Your task to perform on an android device: Open eBay Image 0: 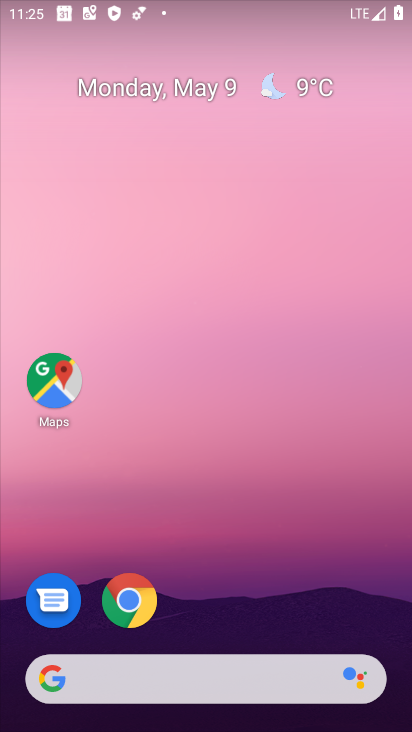
Step 0: drag from (303, 612) to (359, 222)
Your task to perform on an android device: Open eBay Image 1: 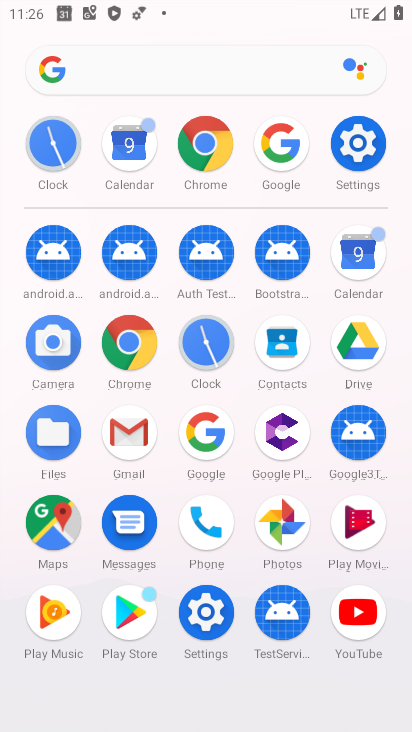
Step 1: click (210, 143)
Your task to perform on an android device: Open eBay Image 2: 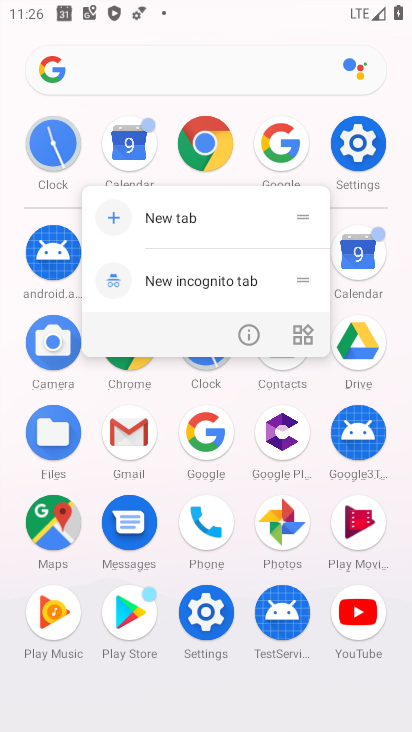
Step 2: click (219, 171)
Your task to perform on an android device: Open eBay Image 3: 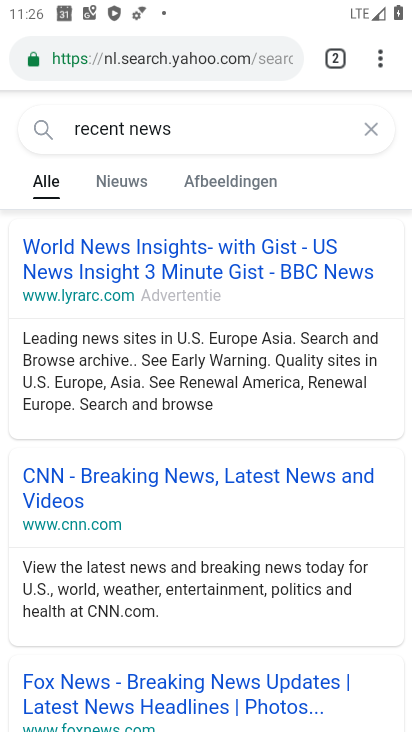
Step 3: click (237, 135)
Your task to perform on an android device: Open eBay Image 4: 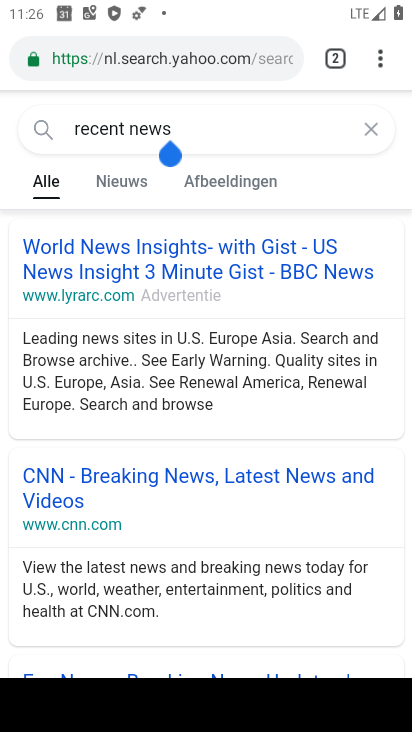
Step 4: click (362, 140)
Your task to perform on an android device: Open eBay Image 5: 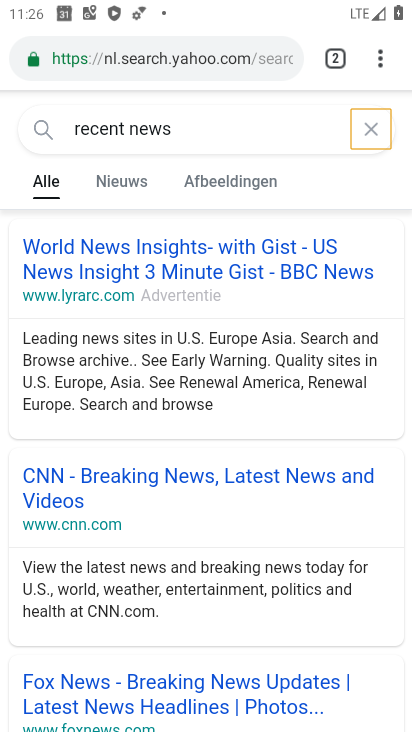
Step 5: click (363, 140)
Your task to perform on an android device: Open eBay Image 6: 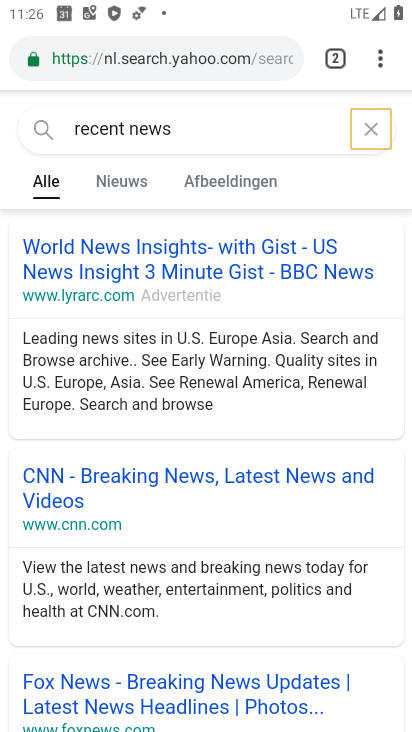
Step 6: click (229, 57)
Your task to perform on an android device: Open eBay Image 7: 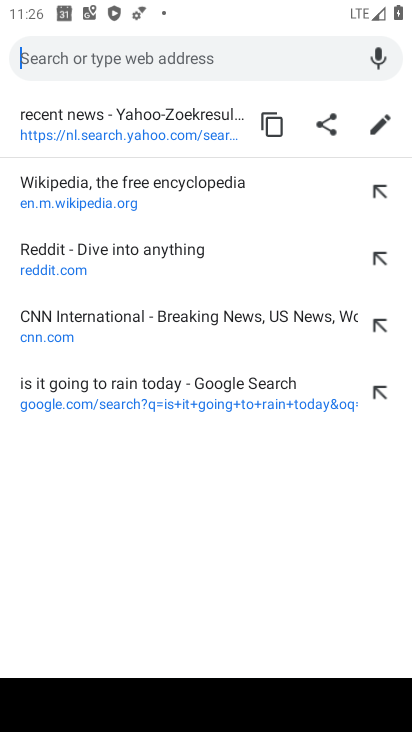
Step 7: type "ebay"
Your task to perform on an android device: Open eBay Image 8: 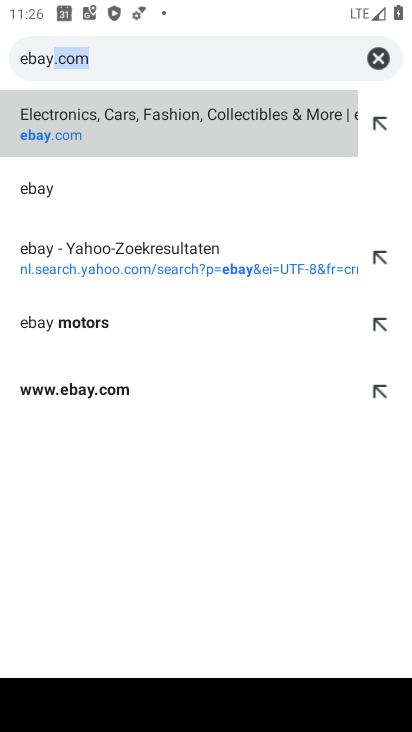
Step 8: click (208, 134)
Your task to perform on an android device: Open eBay Image 9: 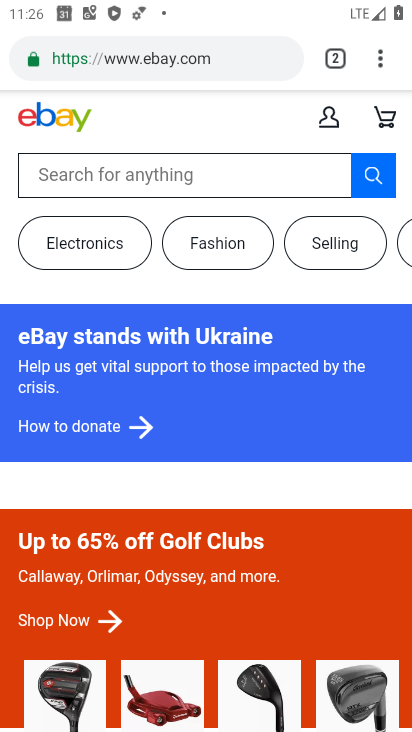
Step 9: task complete